Your task to perform on an android device: install app "Duolingo: language lessons" Image 0: 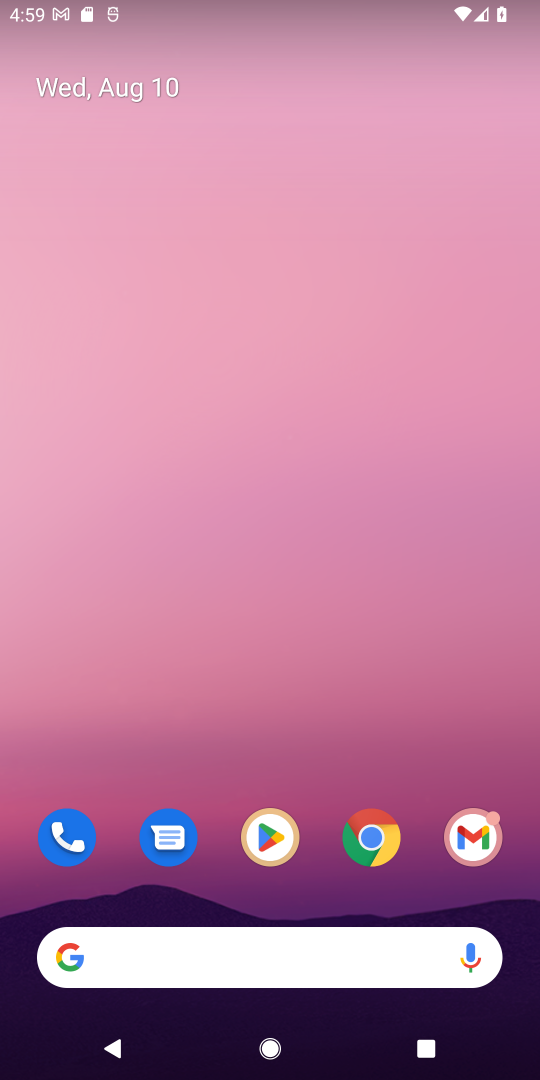
Step 0: click (261, 834)
Your task to perform on an android device: install app "Duolingo: language lessons" Image 1: 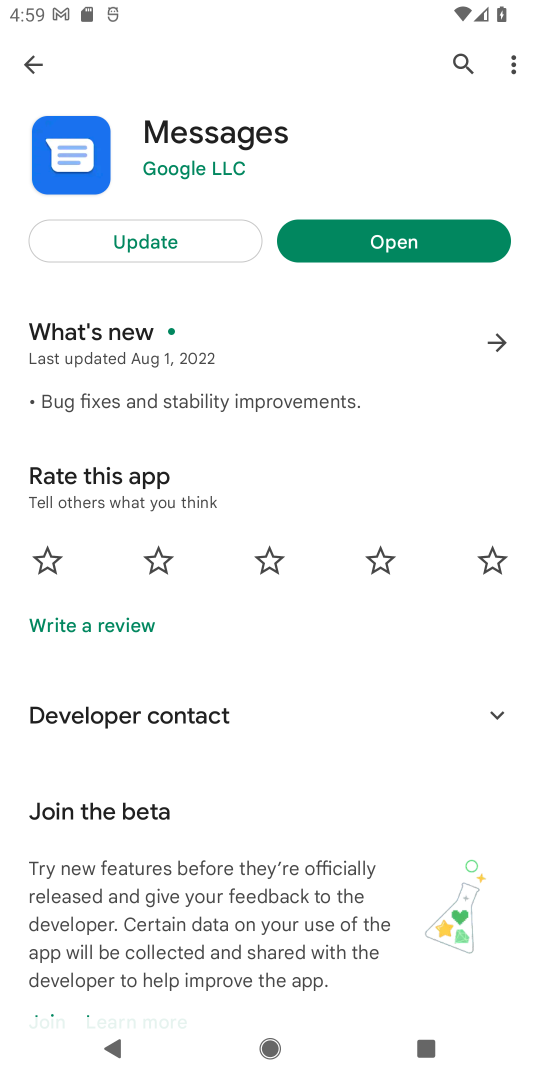
Step 1: click (462, 54)
Your task to perform on an android device: install app "Duolingo: language lessons" Image 2: 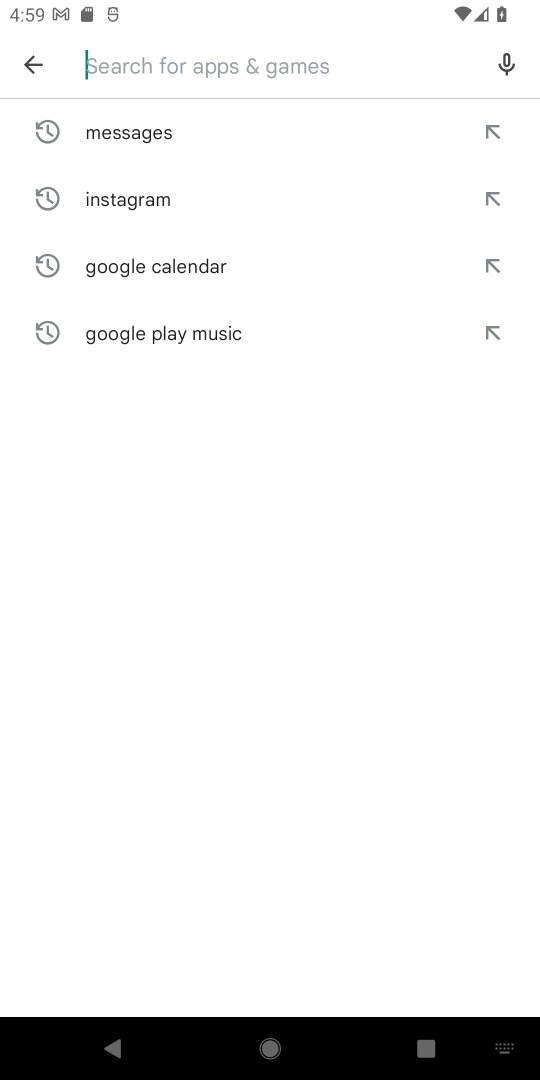
Step 2: type "Duolingo: language lessons"
Your task to perform on an android device: install app "Duolingo: language lessons" Image 3: 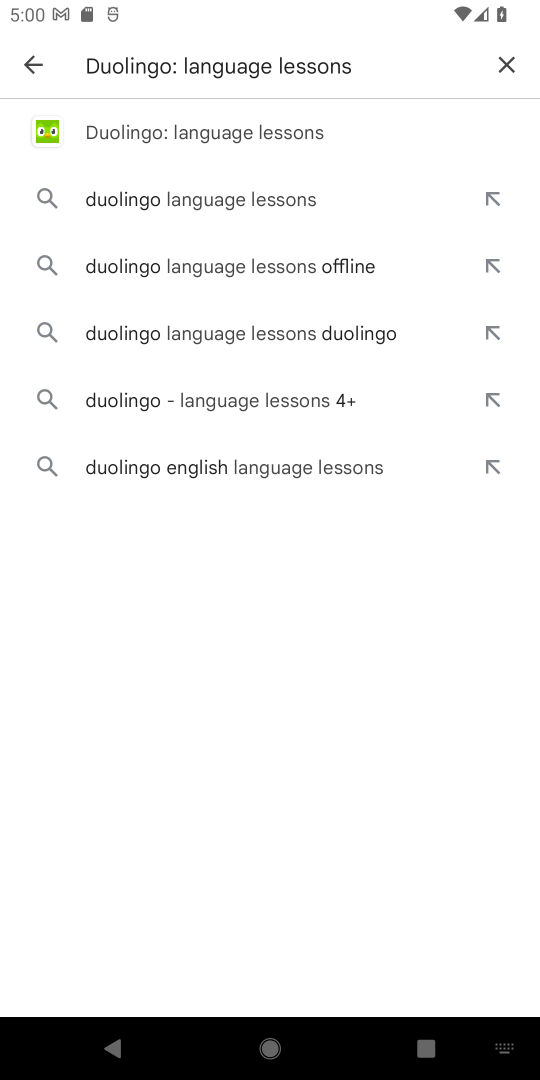
Step 3: click (247, 121)
Your task to perform on an android device: install app "Duolingo: language lessons" Image 4: 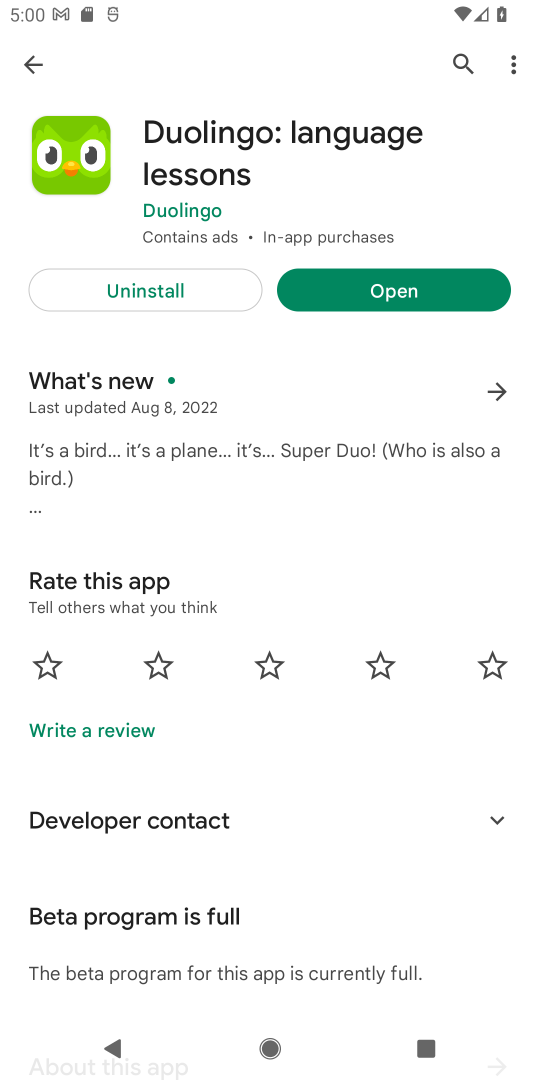
Step 4: task complete